Your task to perform on an android device: see tabs open on other devices in the chrome app Image 0: 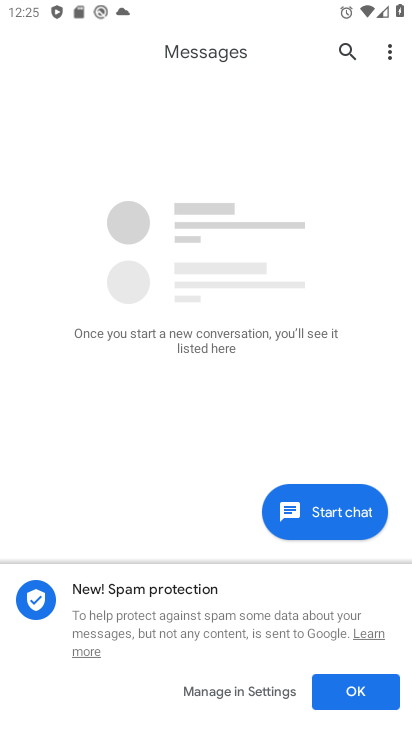
Step 0: press home button
Your task to perform on an android device: see tabs open on other devices in the chrome app Image 1: 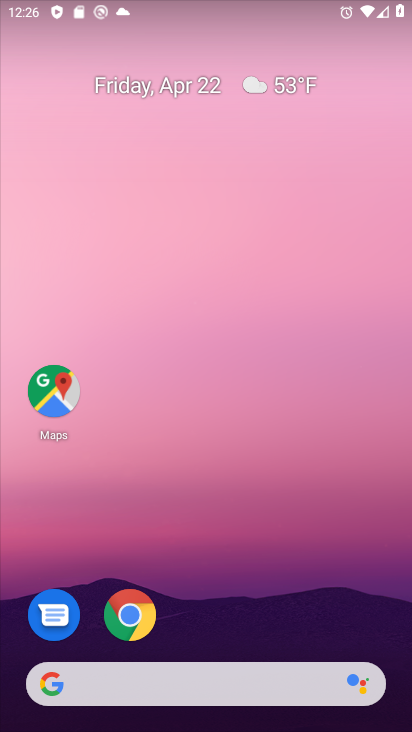
Step 1: click (134, 619)
Your task to perform on an android device: see tabs open on other devices in the chrome app Image 2: 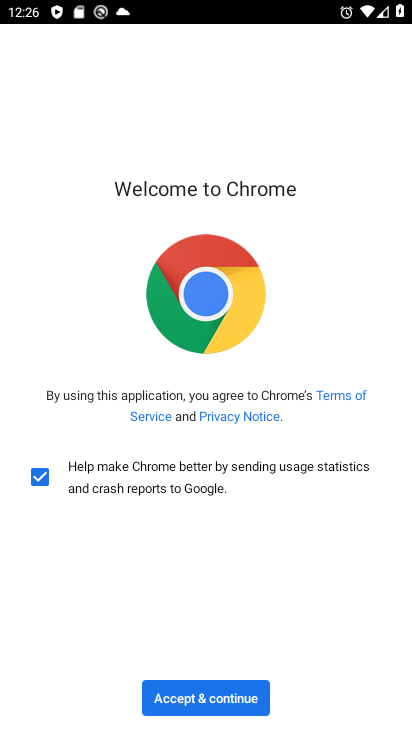
Step 2: click (173, 693)
Your task to perform on an android device: see tabs open on other devices in the chrome app Image 3: 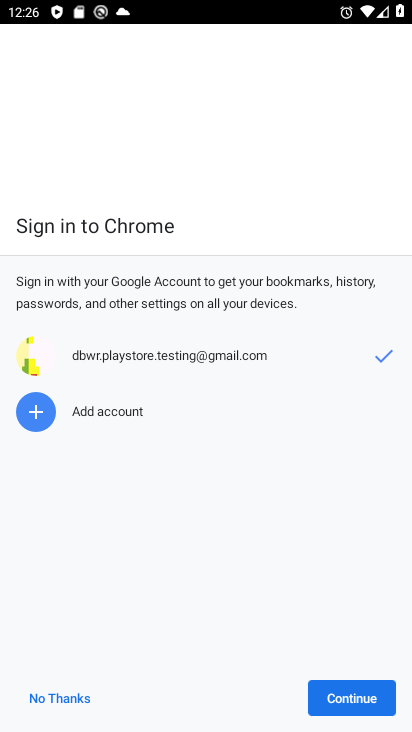
Step 3: click (338, 689)
Your task to perform on an android device: see tabs open on other devices in the chrome app Image 4: 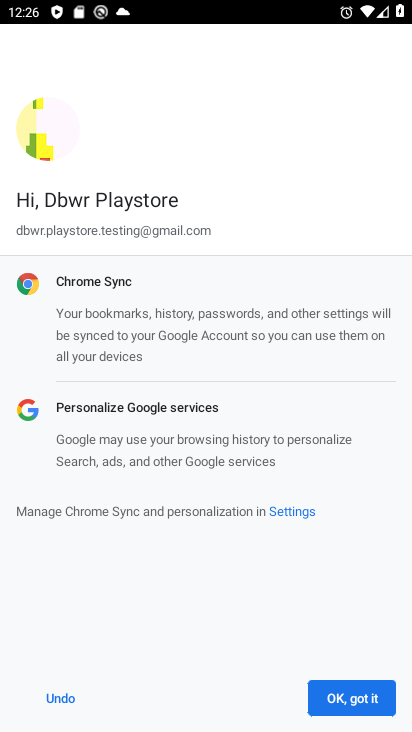
Step 4: click (343, 701)
Your task to perform on an android device: see tabs open on other devices in the chrome app Image 5: 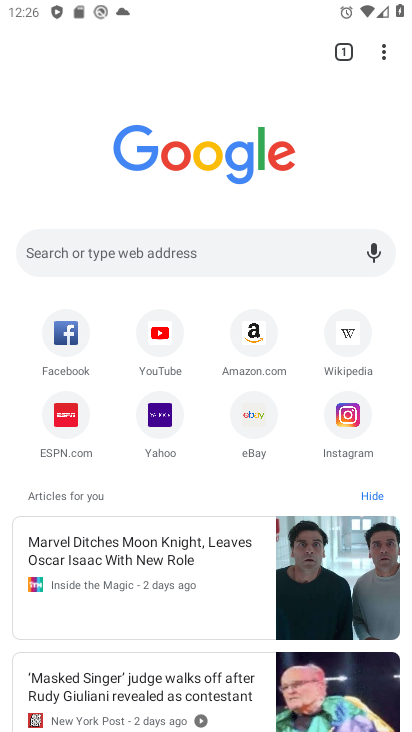
Step 5: click (389, 44)
Your task to perform on an android device: see tabs open on other devices in the chrome app Image 6: 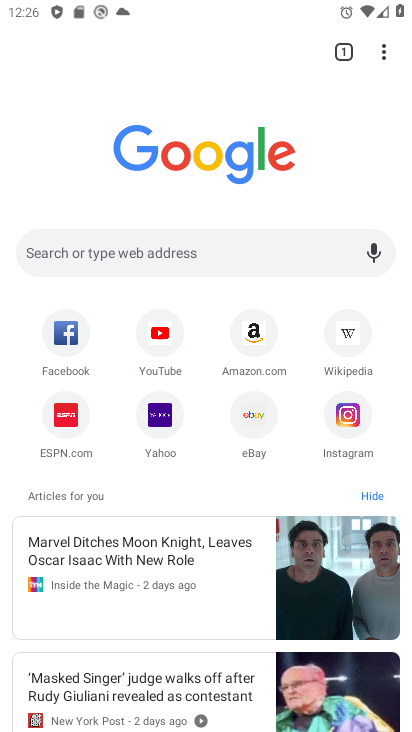
Step 6: click (377, 45)
Your task to perform on an android device: see tabs open on other devices in the chrome app Image 7: 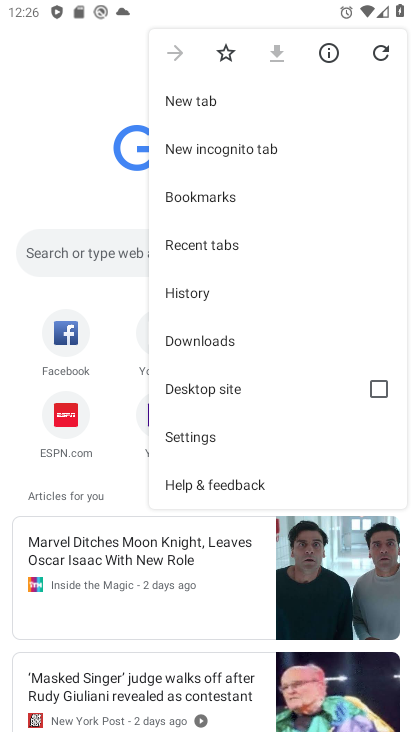
Step 7: click (221, 245)
Your task to perform on an android device: see tabs open on other devices in the chrome app Image 8: 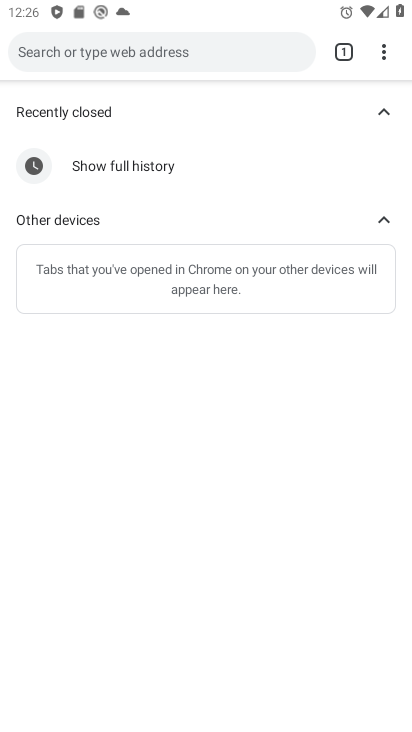
Step 8: task complete